Your task to perform on an android device: turn on showing notifications on the lock screen Image 0: 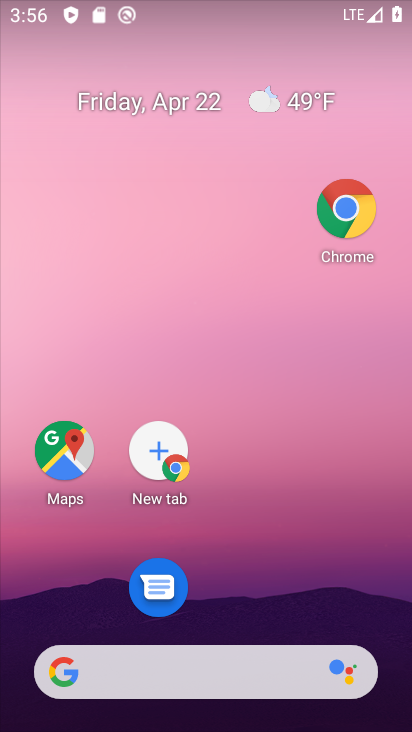
Step 0: drag from (266, 593) to (230, 147)
Your task to perform on an android device: turn on showing notifications on the lock screen Image 1: 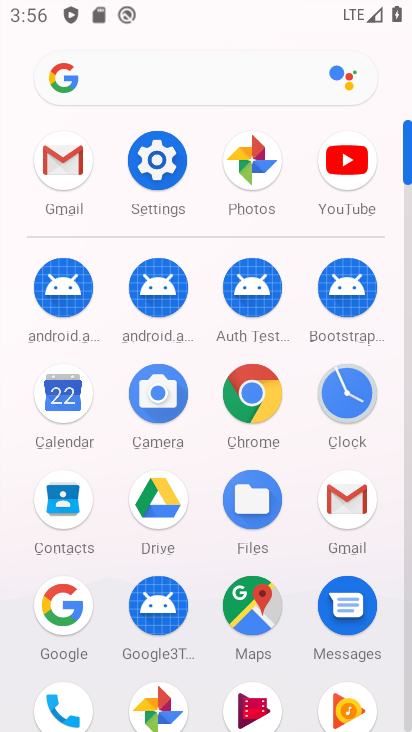
Step 1: click (164, 172)
Your task to perform on an android device: turn on showing notifications on the lock screen Image 2: 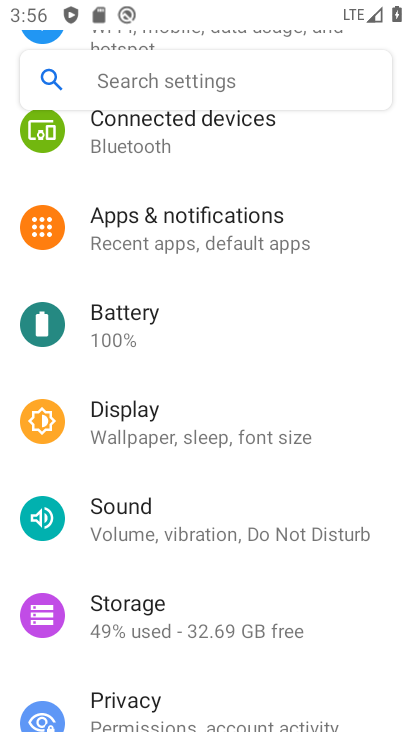
Step 2: click (232, 200)
Your task to perform on an android device: turn on showing notifications on the lock screen Image 3: 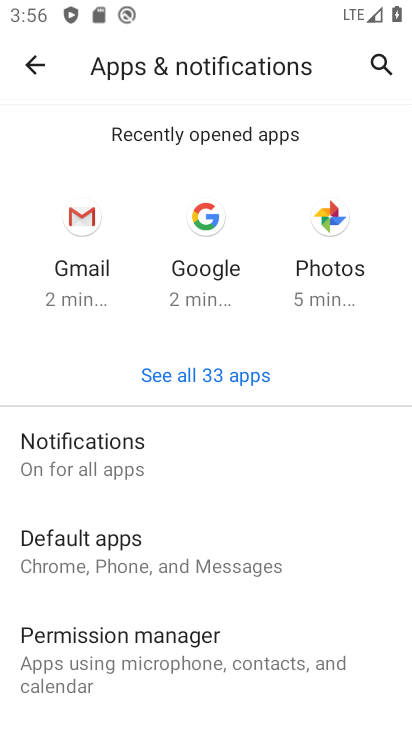
Step 3: click (95, 465)
Your task to perform on an android device: turn on showing notifications on the lock screen Image 4: 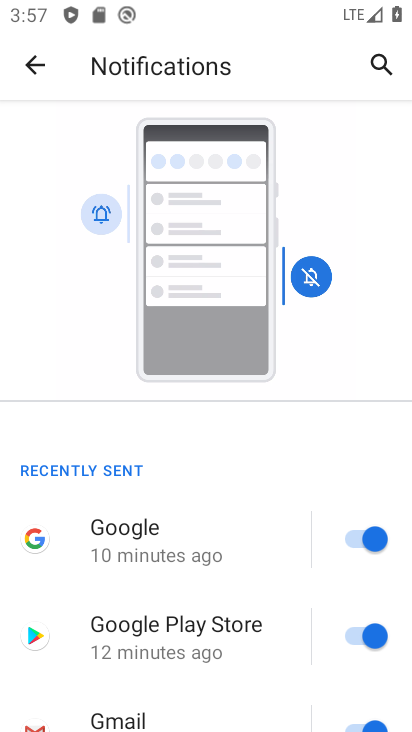
Step 4: drag from (124, 631) to (188, 196)
Your task to perform on an android device: turn on showing notifications on the lock screen Image 5: 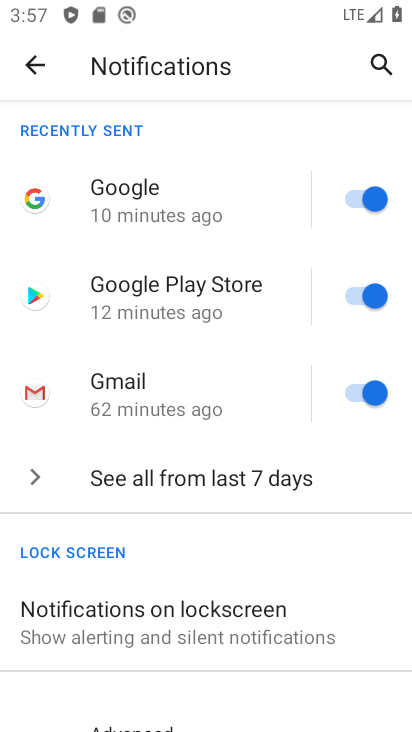
Step 5: click (137, 596)
Your task to perform on an android device: turn on showing notifications on the lock screen Image 6: 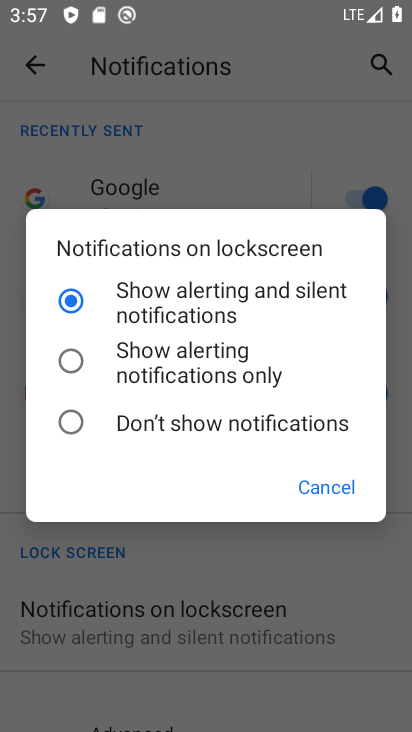
Step 6: task complete